Your task to perform on an android device: change notification settings in the gmail app Image 0: 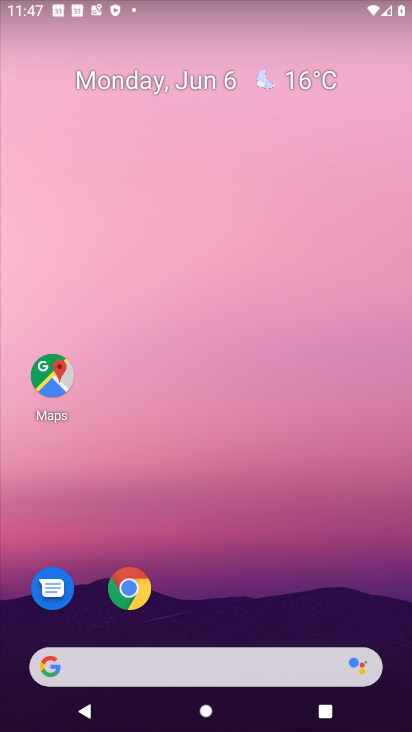
Step 0: drag from (220, 619) to (194, 139)
Your task to perform on an android device: change notification settings in the gmail app Image 1: 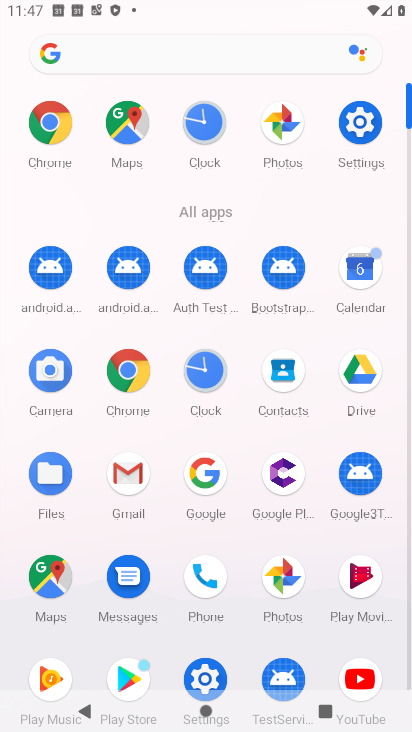
Step 1: click (137, 487)
Your task to perform on an android device: change notification settings in the gmail app Image 2: 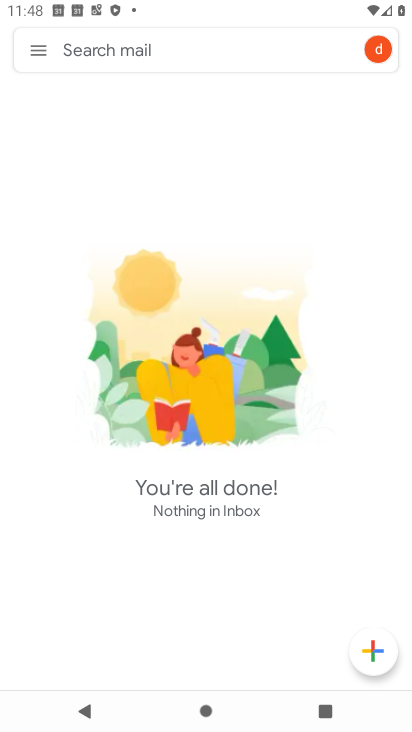
Step 2: click (44, 55)
Your task to perform on an android device: change notification settings in the gmail app Image 3: 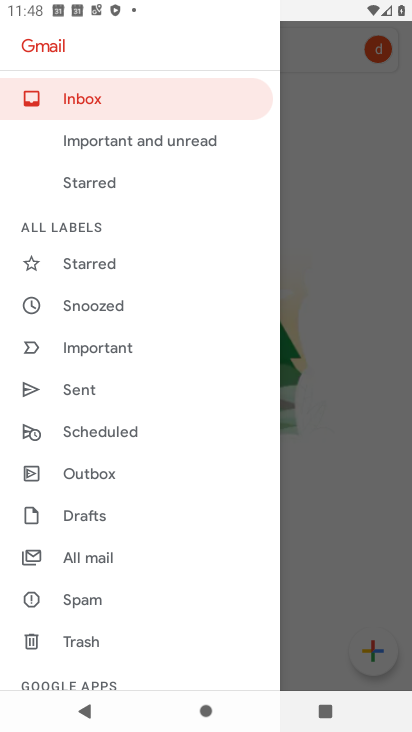
Step 3: drag from (142, 514) to (116, 114)
Your task to perform on an android device: change notification settings in the gmail app Image 4: 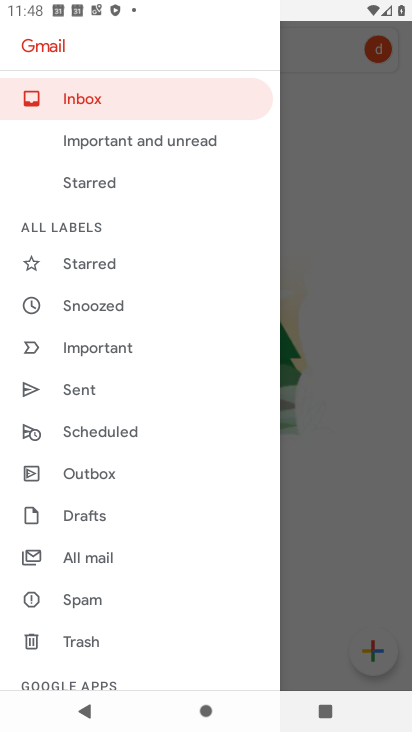
Step 4: drag from (120, 598) to (134, 86)
Your task to perform on an android device: change notification settings in the gmail app Image 5: 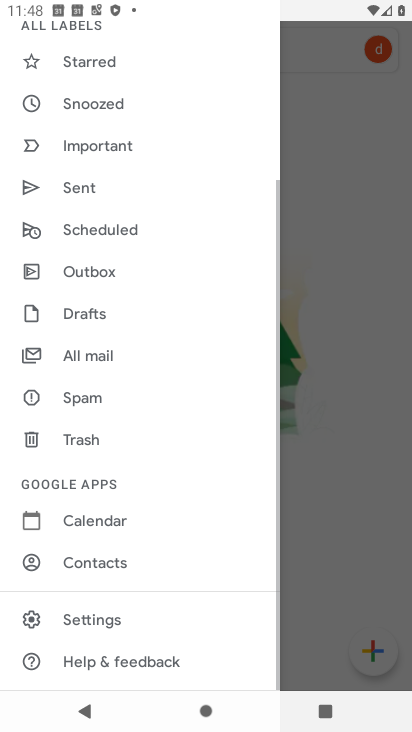
Step 5: click (110, 607)
Your task to perform on an android device: change notification settings in the gmail app Image 6: 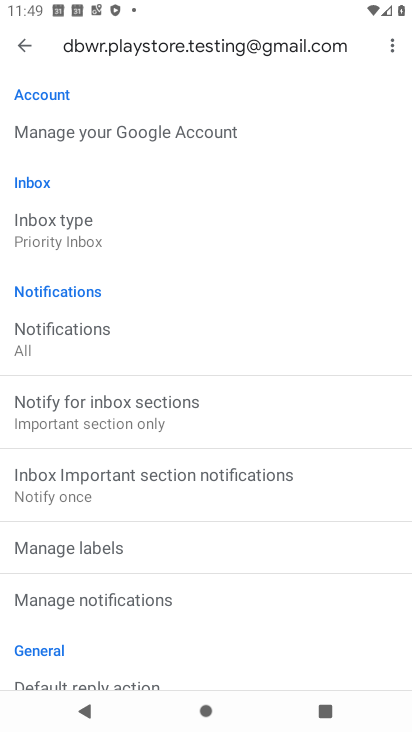
Step 6: click (20, 48)
Your task to perform on an android device: change notification settings in the gmail app Image 7: 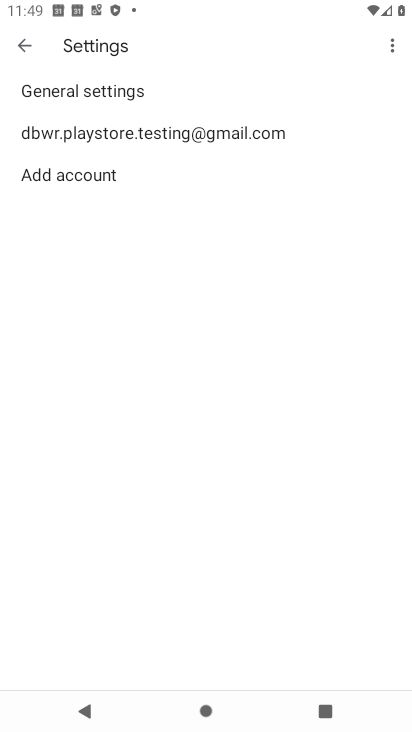
Step 7: click (71, 100)
Your task to perform on an android device: change notification settings in the gmail app Image 8: 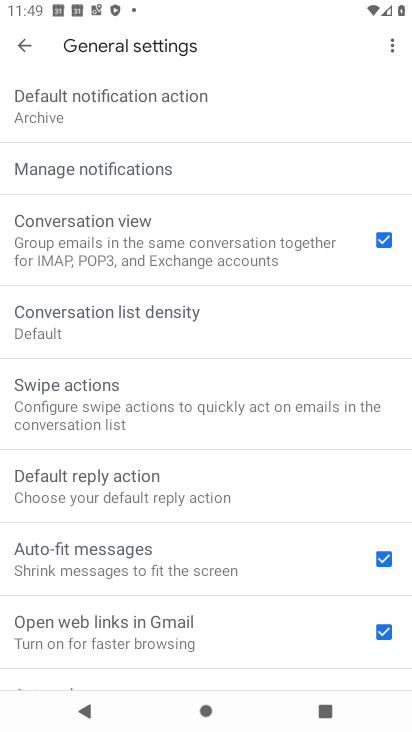
Step 8: click (67, 153)
Your task to perform on an android device: change notification settings in the gmail app Image 9: 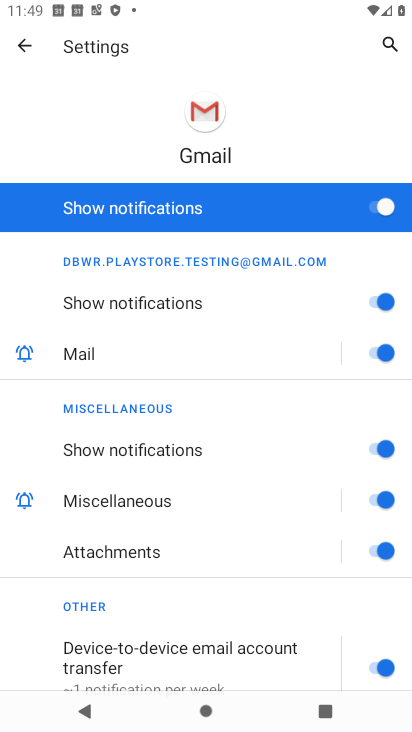
Step 9: click (373, 218)
Your task to perform on an android device: change notification settings in the gmail app Image 10: 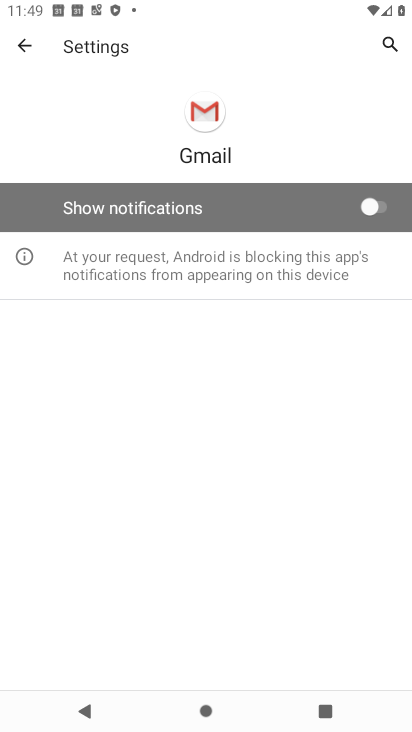
Step 10: task complete